Your task to perform on an android device: open app "Cash App" Image 0: 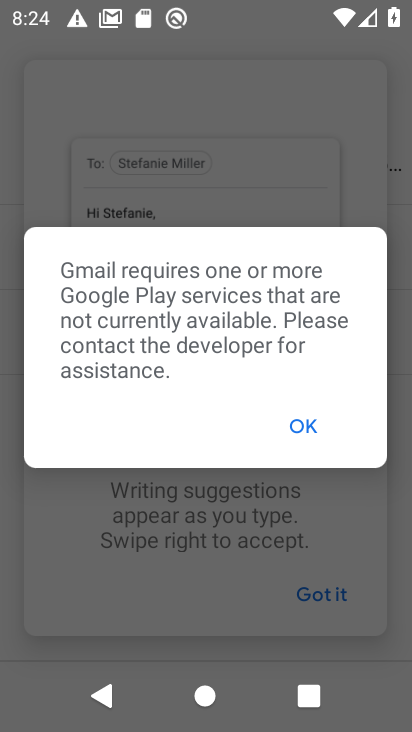
Step 0: press home button
Your task to perform on an android device: open app "Cash App" Image 1: 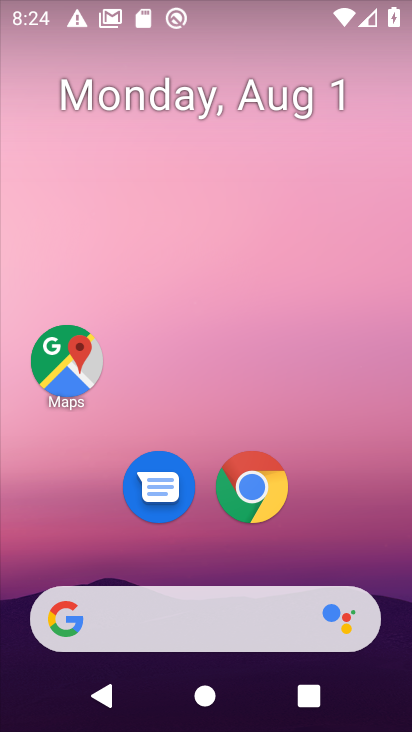
Step 1: drag from (362, 506) to (351, 86)
Your task to perform on an android device: open app "Cash App" Image 2: 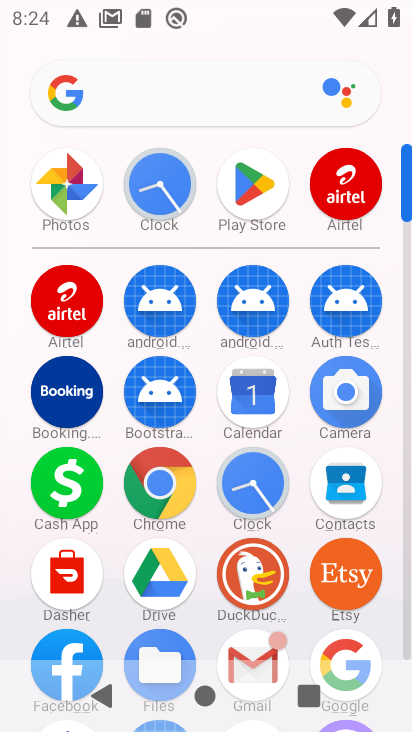
Step 2: click (255, 186)
Your task to perform on an android device: open app "Cash App" Image 3: 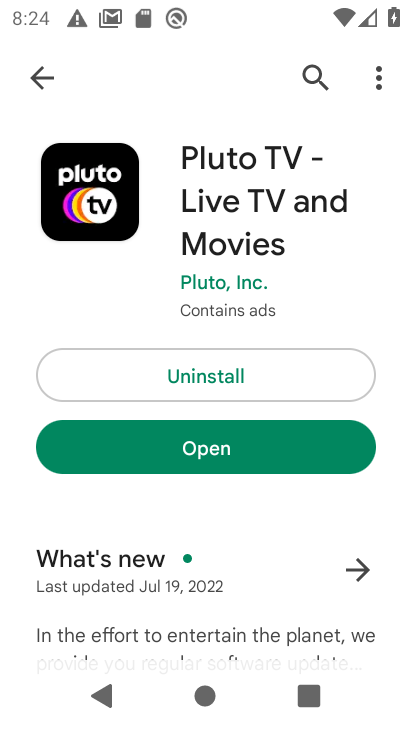
Step 3: click (315, 70)
Your task to perform on an android device: open app "Cash App" Image 4: 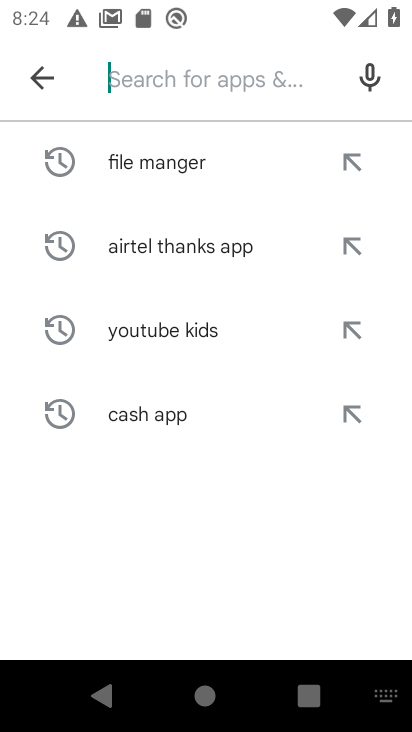
Step 4: type "cash app"
Your task to perform on an android device: open app "Cash App" Image 5: 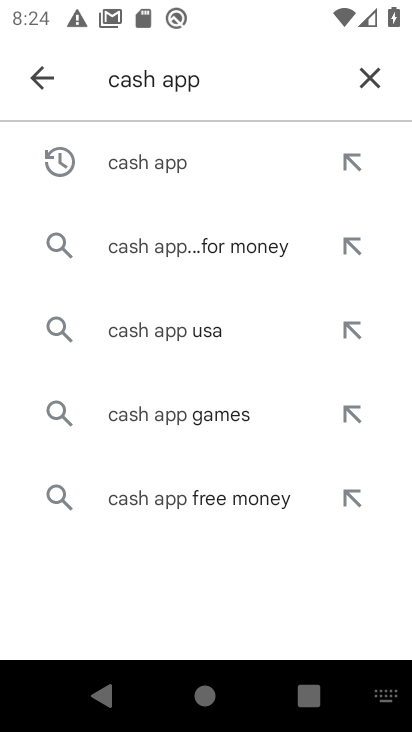
Step 5: click (223, 164)
Your task to perform on an android device: open app "Cash App" Image 6: 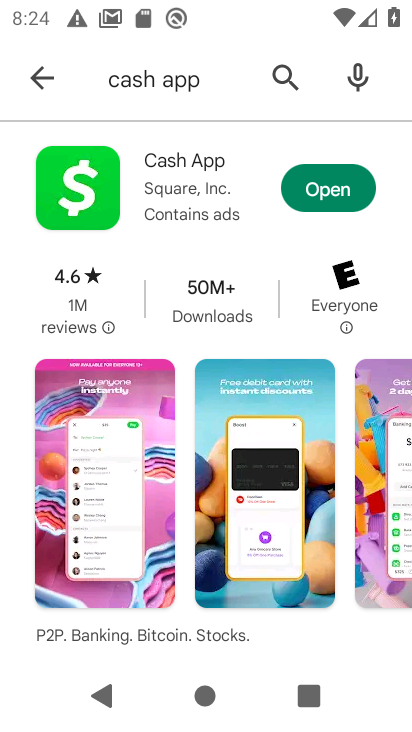
Step 6: click (330, 189)
Your task to perform on an android device: open app "Cash App" Image 7: 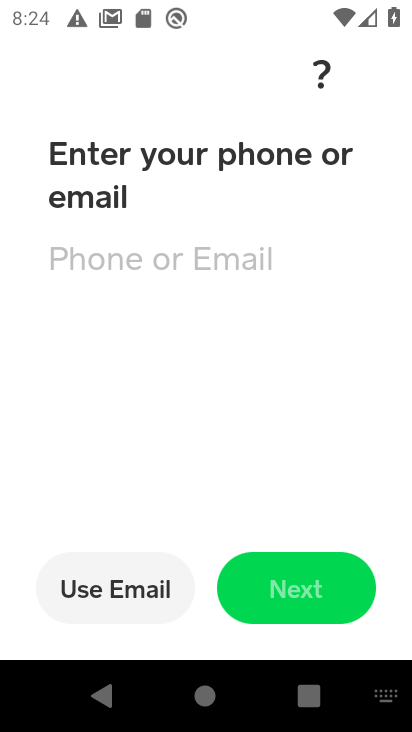
Step 7: task complete